Your task to perform on an android device: add a contact in the contacts app Image 0: 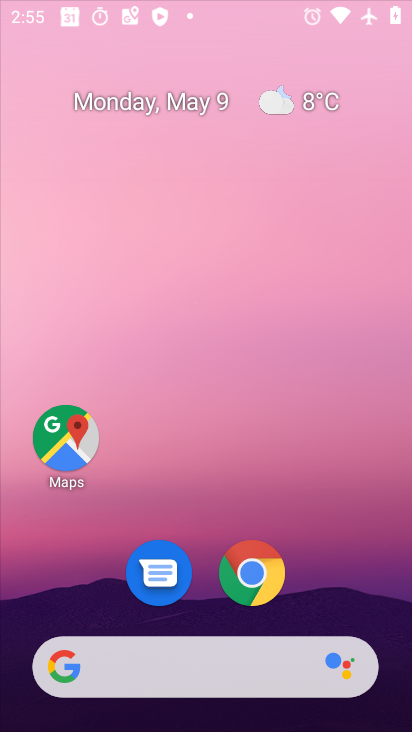
Step 0: click (245, 578)
Your task to perform on an android device: add a contact in the contacts app Image 1: 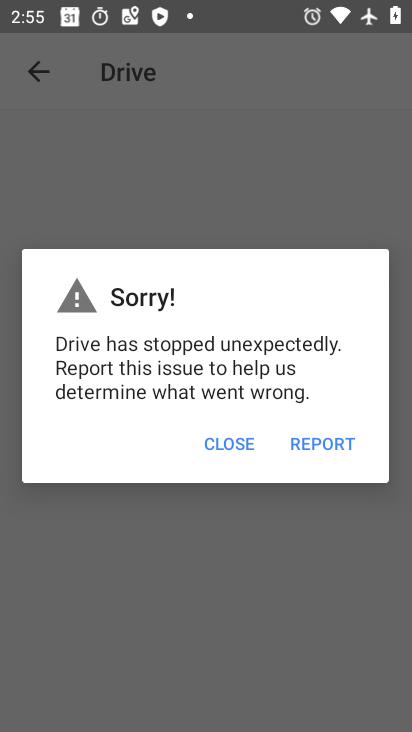
Step 1: press home button
Your task to perform on an android device: add a contact in the contacts app Image 2: 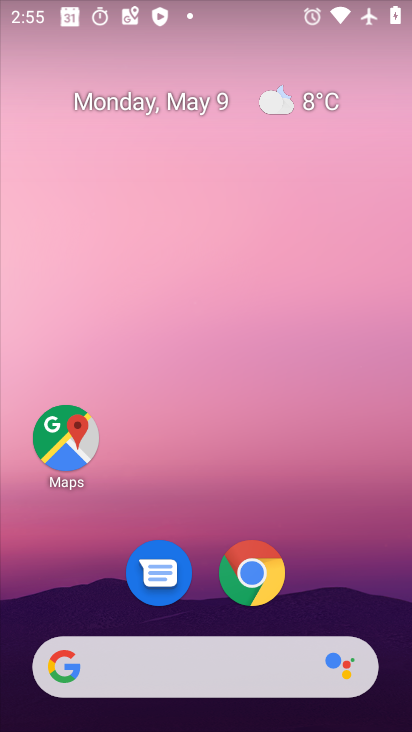
Step 2: drag from (198, 675) to (279, 217)
Your task to perform on an android device: add a contact in the contacts app Image 3: 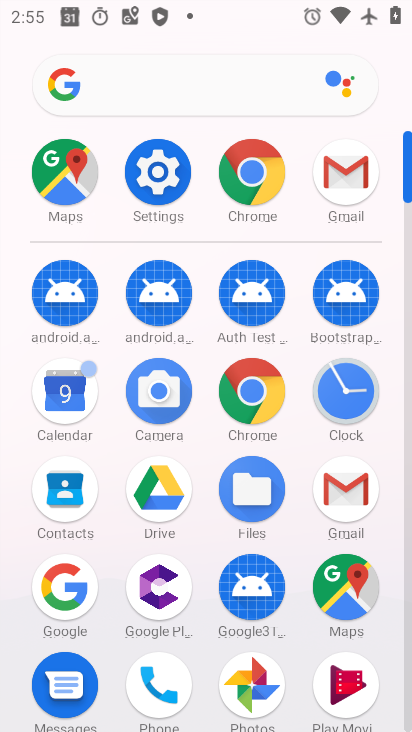
Step 3: click (70, 497)
Your task to perform on an android device: add a contact in the contacts app Image 4: 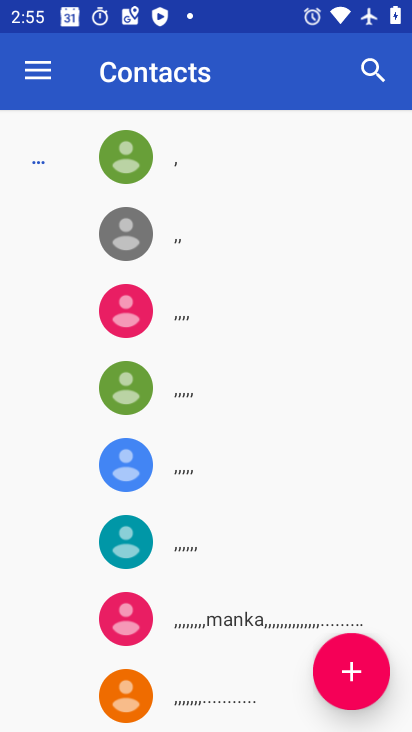
Step 4: click (344, 681)
Your task to perform on an android device: add a contact in the contacts app Image 5: 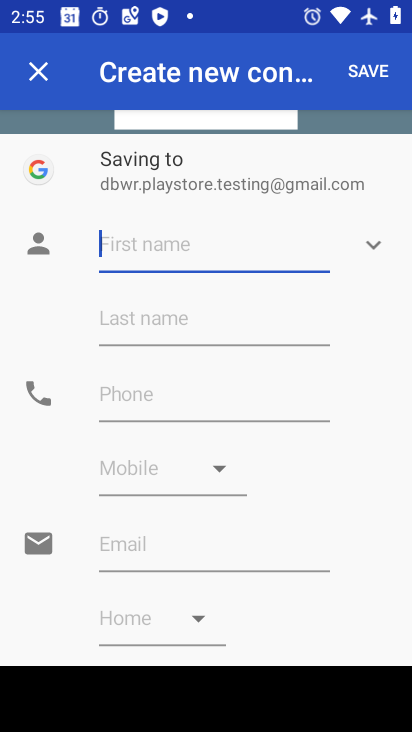
Step 5: type "njhuy"
Your task to perform on an android device: add a contact in the contacts app Image 6: 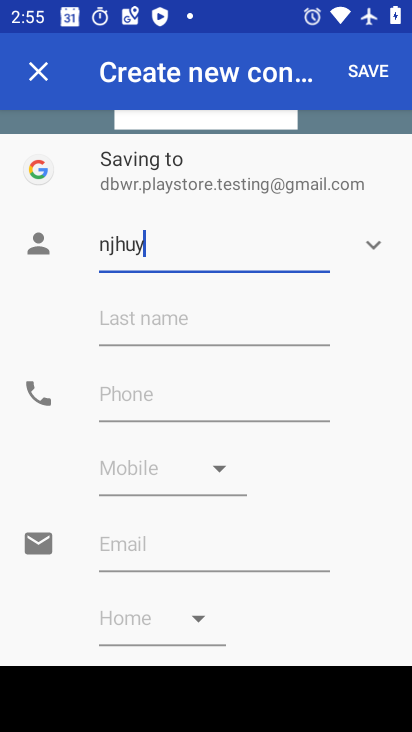
Step 6: click (132, 394)
Your task to perform on an android device: add a contact in the contacts app Image 7: 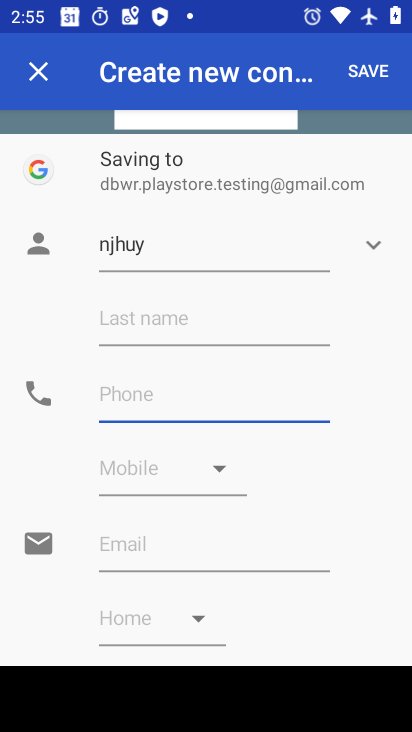
Step 7: type "95647"
Your task to perform on an android device: add a contact in the contacts app Image 8: 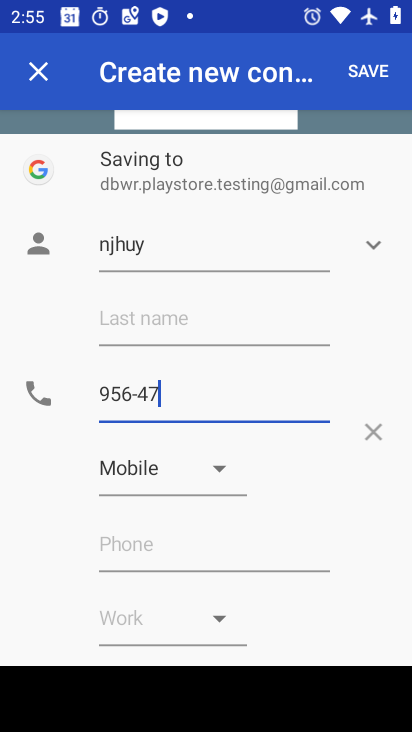
Step 8: click (374, 69)
Your task to perform on an android device: add a contact in the contacts app Image 9: 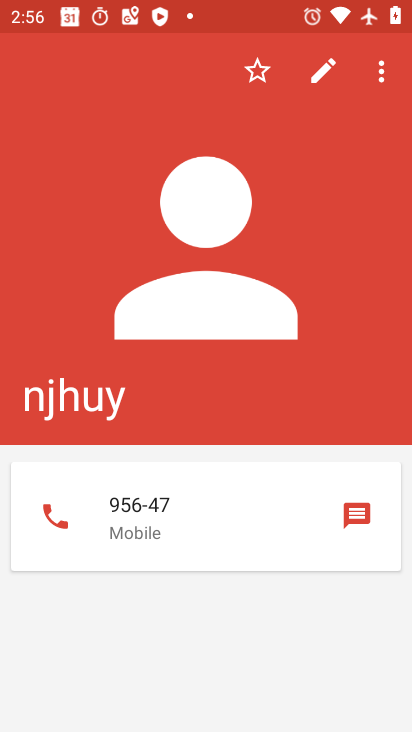
Step 9: task complete